Your task to perform on an android device: install app "eBay: The shopping marketplace" Image 0: 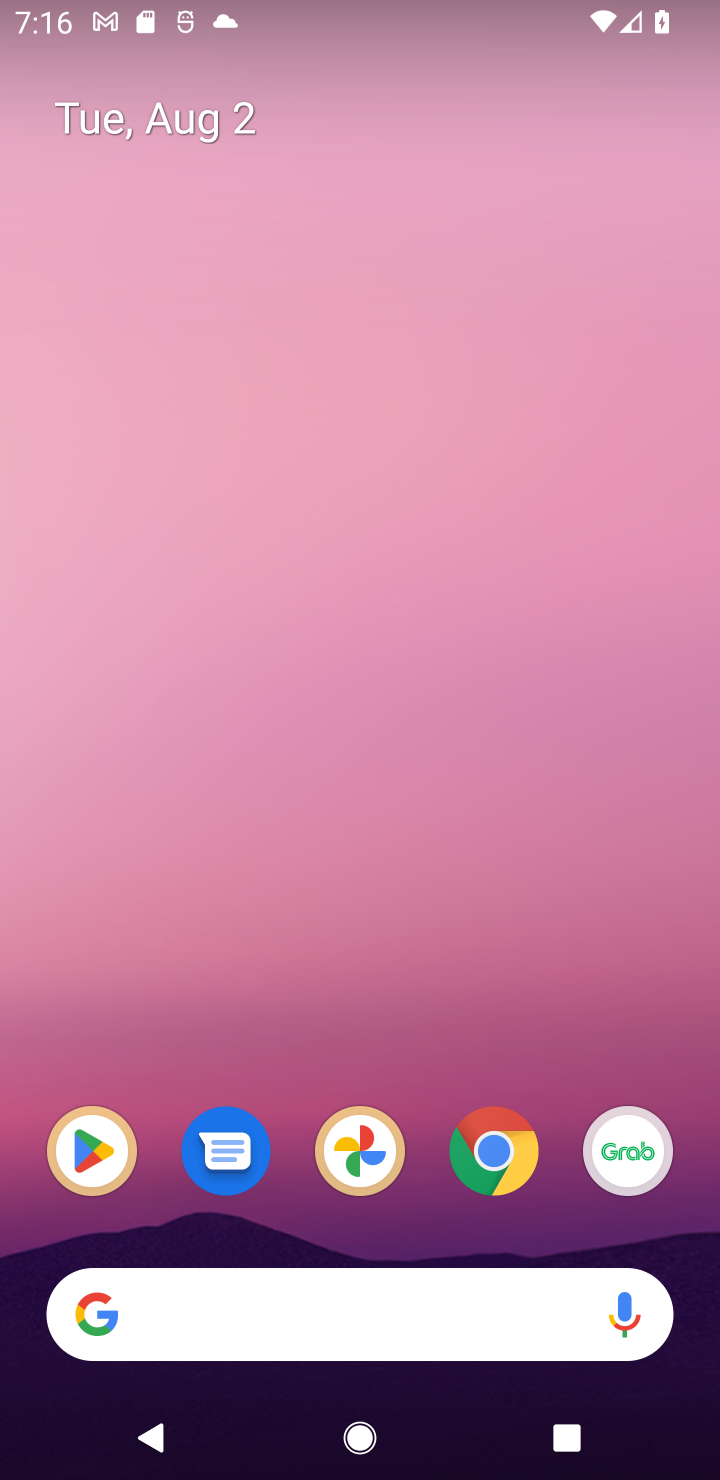
Step 0: click (78, 1164)
Your task to perform on an android device: install app "eBay: The shopping marketplace" Image 1: 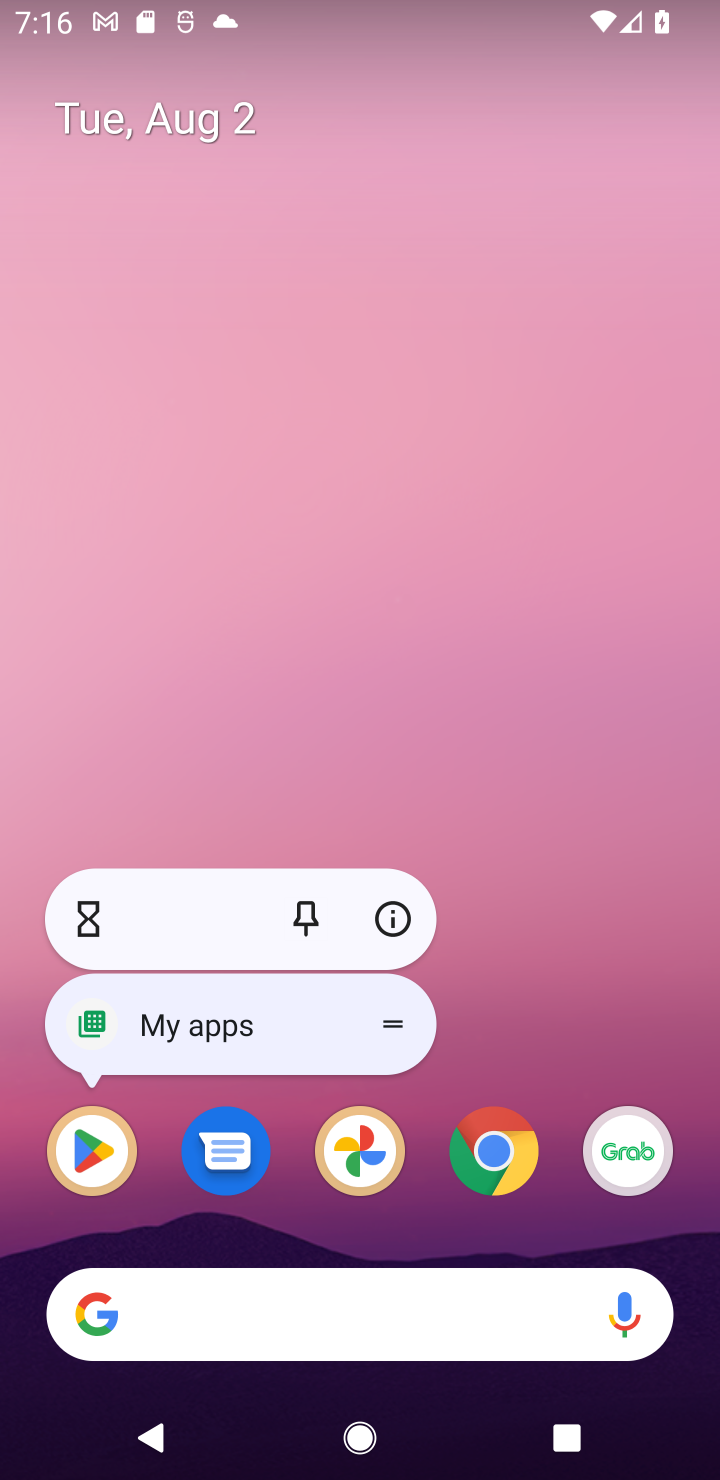
Step 1: click (78, 1164)
Your task to perform on an android device: install app "eBay: The shopping marketplace" Image 2: 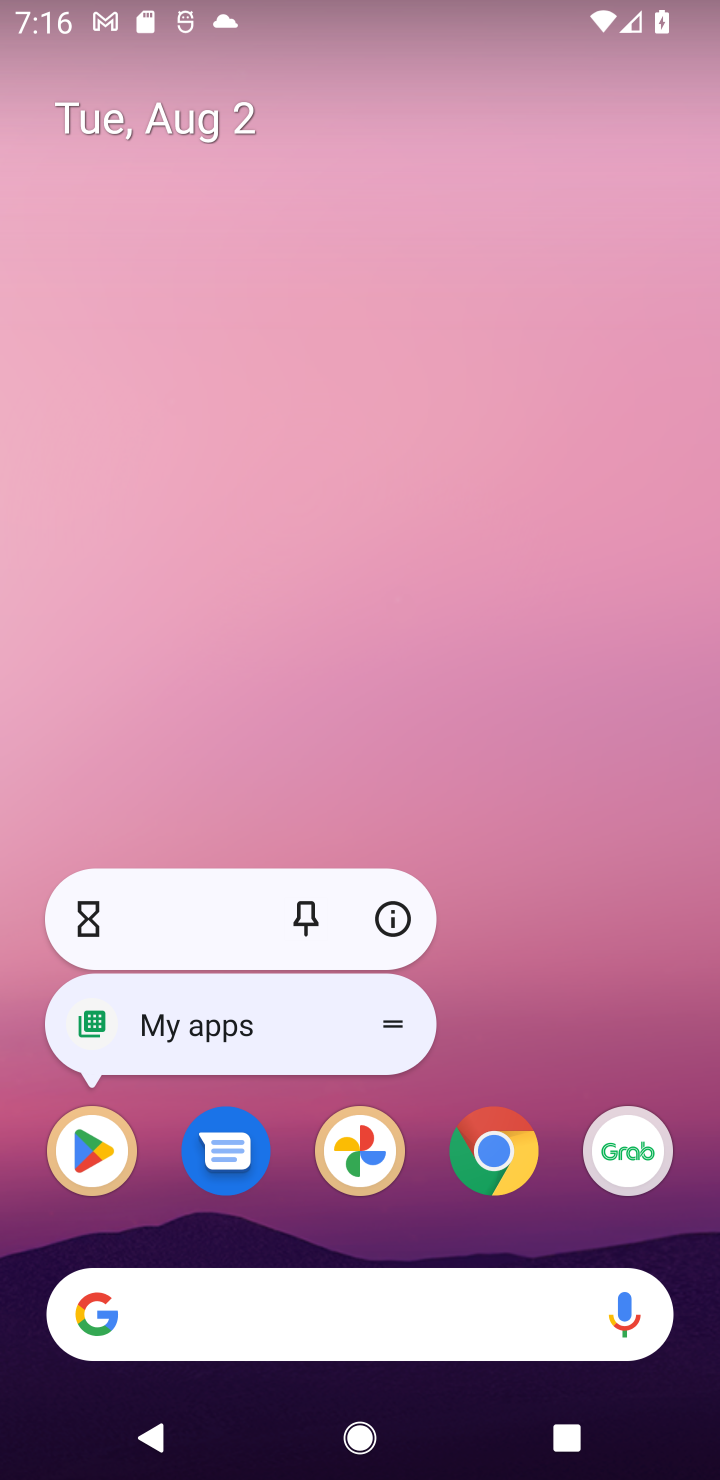
Step 2: click (63, 1146)
Your task to perform on an android device: install app "eBay: The shopping marketplace" Image 3: 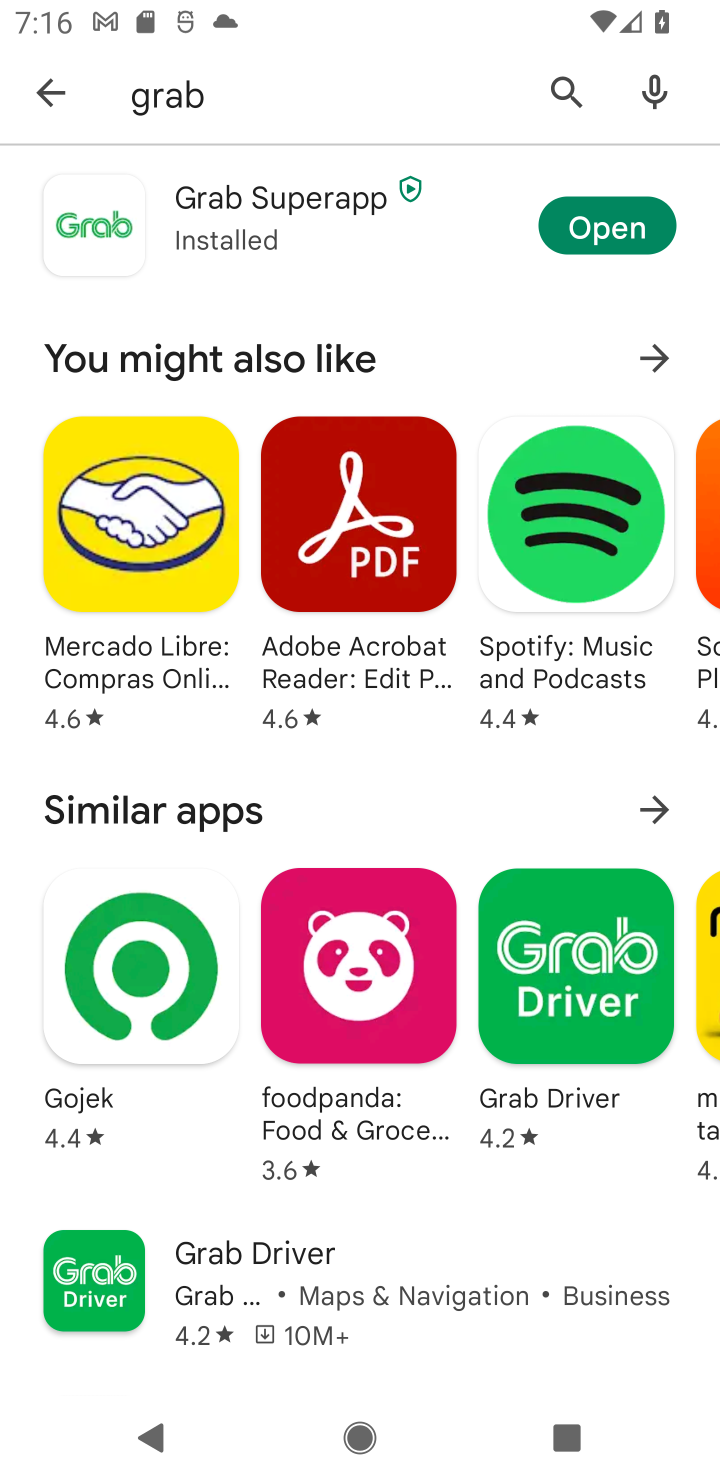
Step 3: click (571, 89)
Your task to perform on an android device: install app "eBay: The shopping marketplace" Image 4: 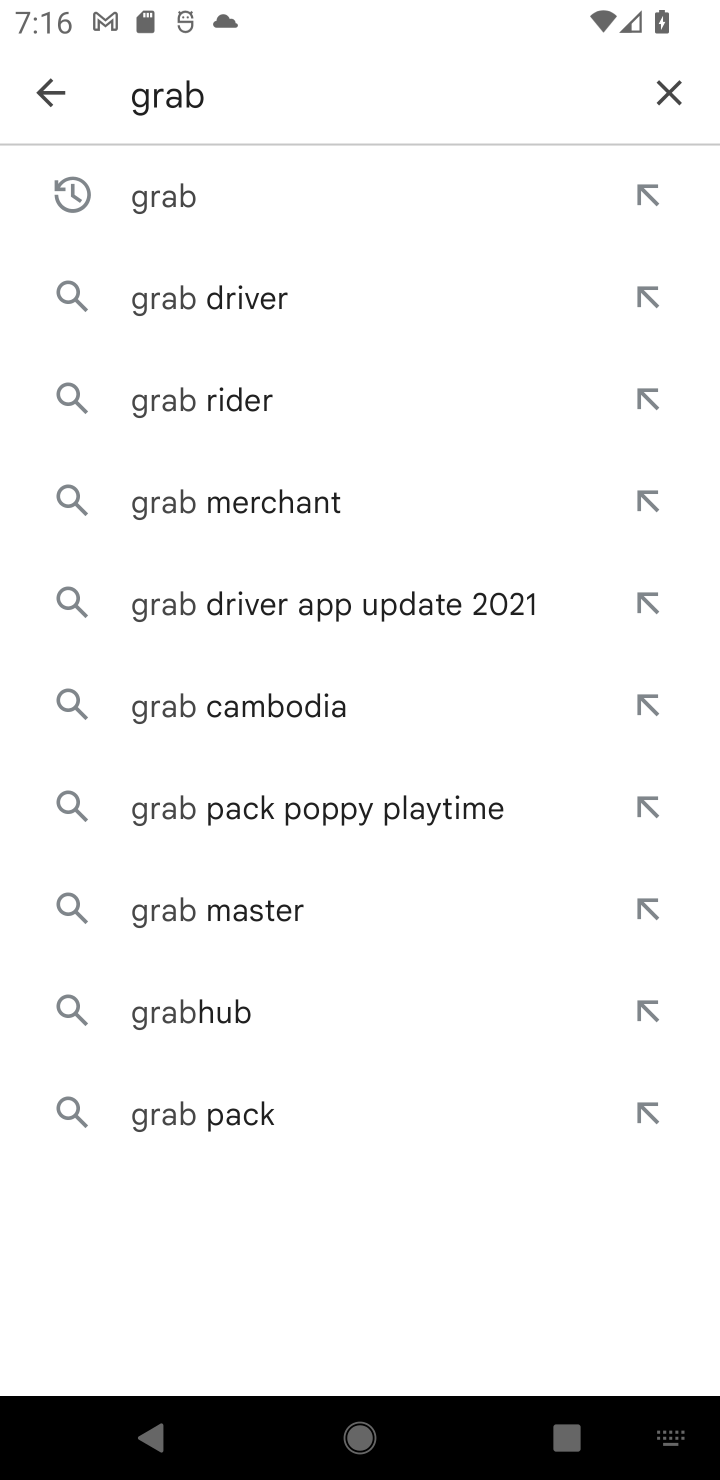
Step 4: click (679, 105)
Your task to perform on an android device: install app "eBay: The shopping marketplace" Image 5: 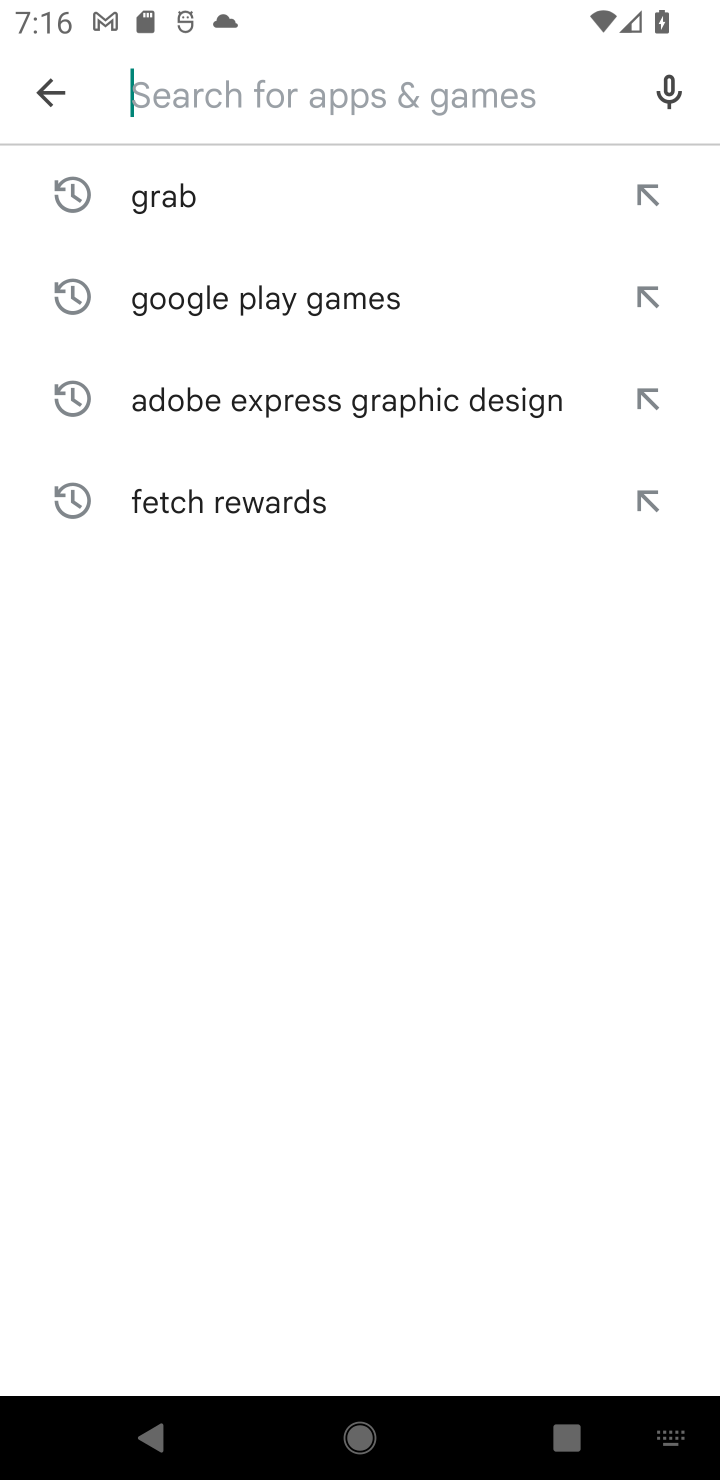
Step 5: type "eBay: The shopping marketplace"
Your task to perform on an android device: install app "eBay: The shopping marketplace" Image 6: 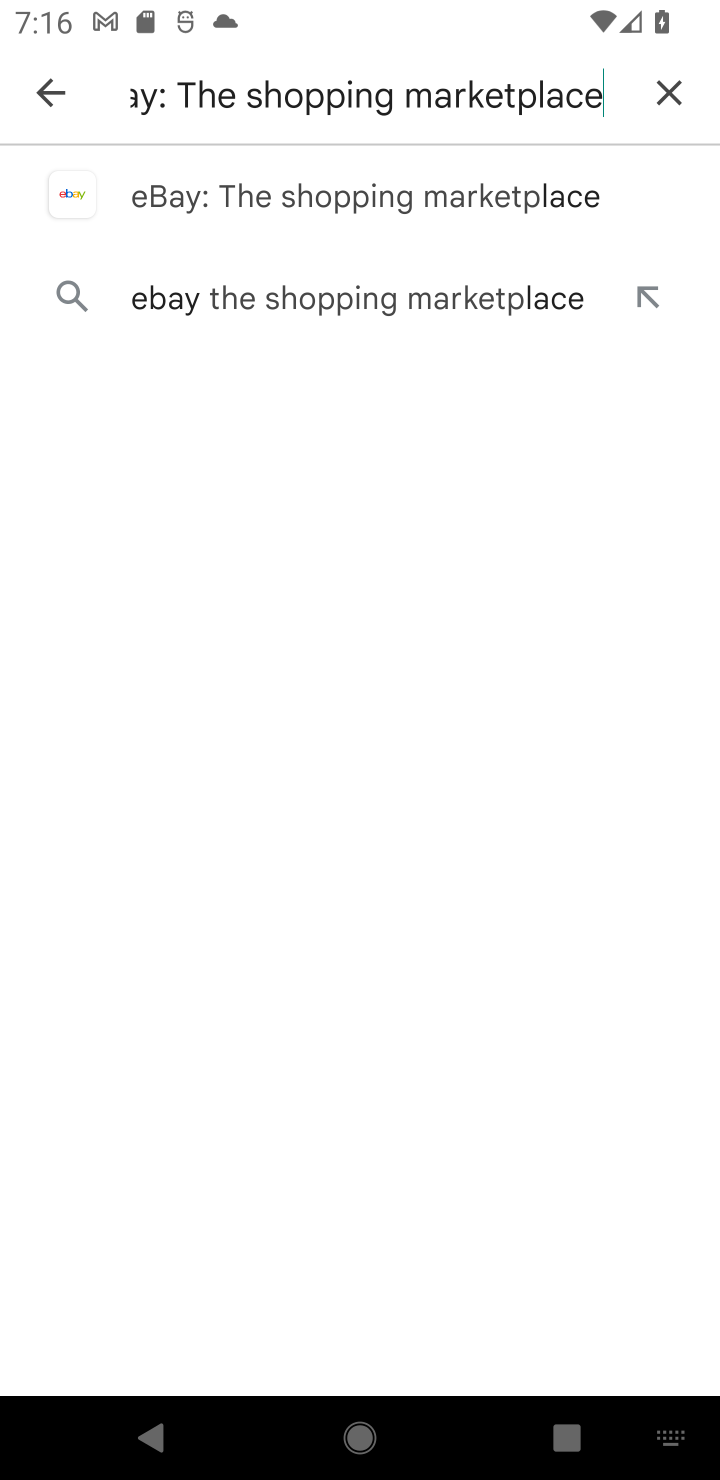
Step 6: type ""
Your task to perform on an android device: install app "eBay: The shopping marketplace" Image 7: 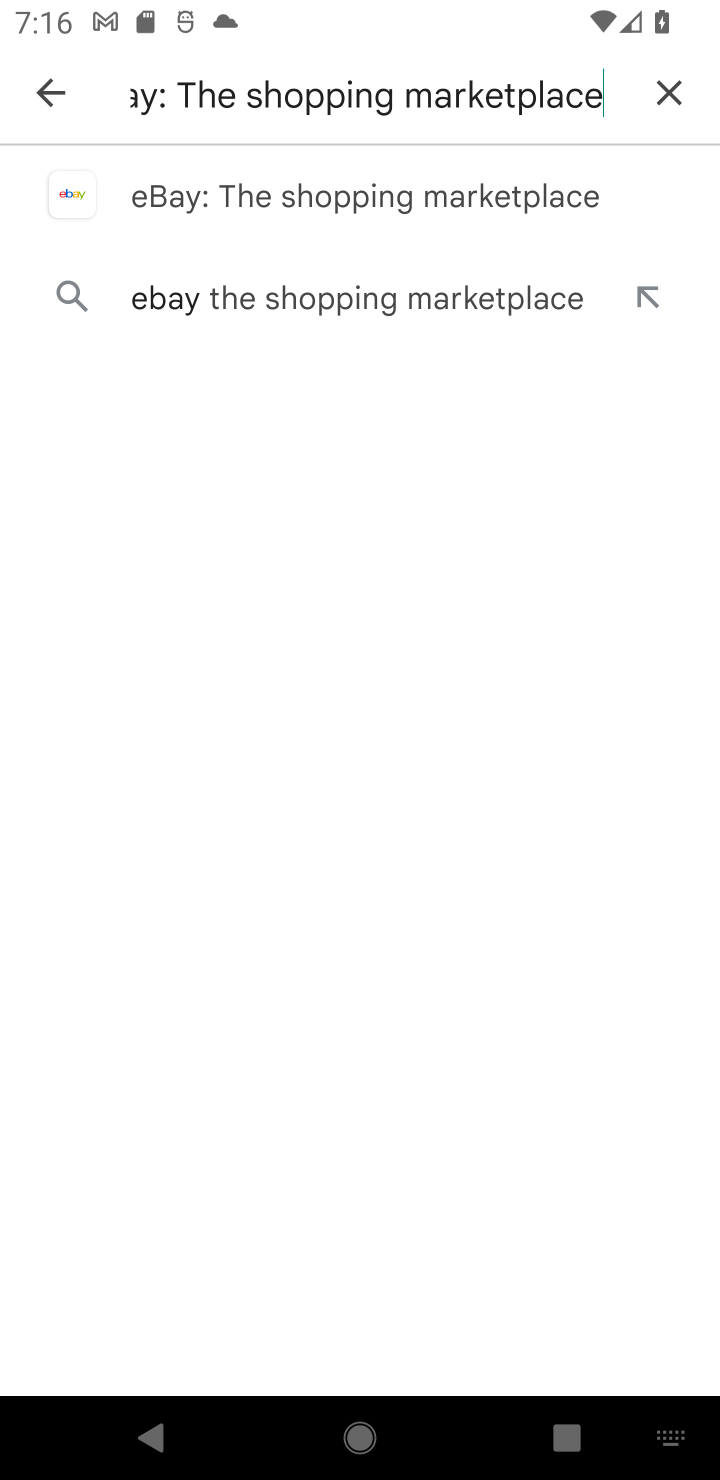
Step 7: click (246, 198)
Your task to perform on an android device: install app "eBay: The shopping marketplace" Image 8: 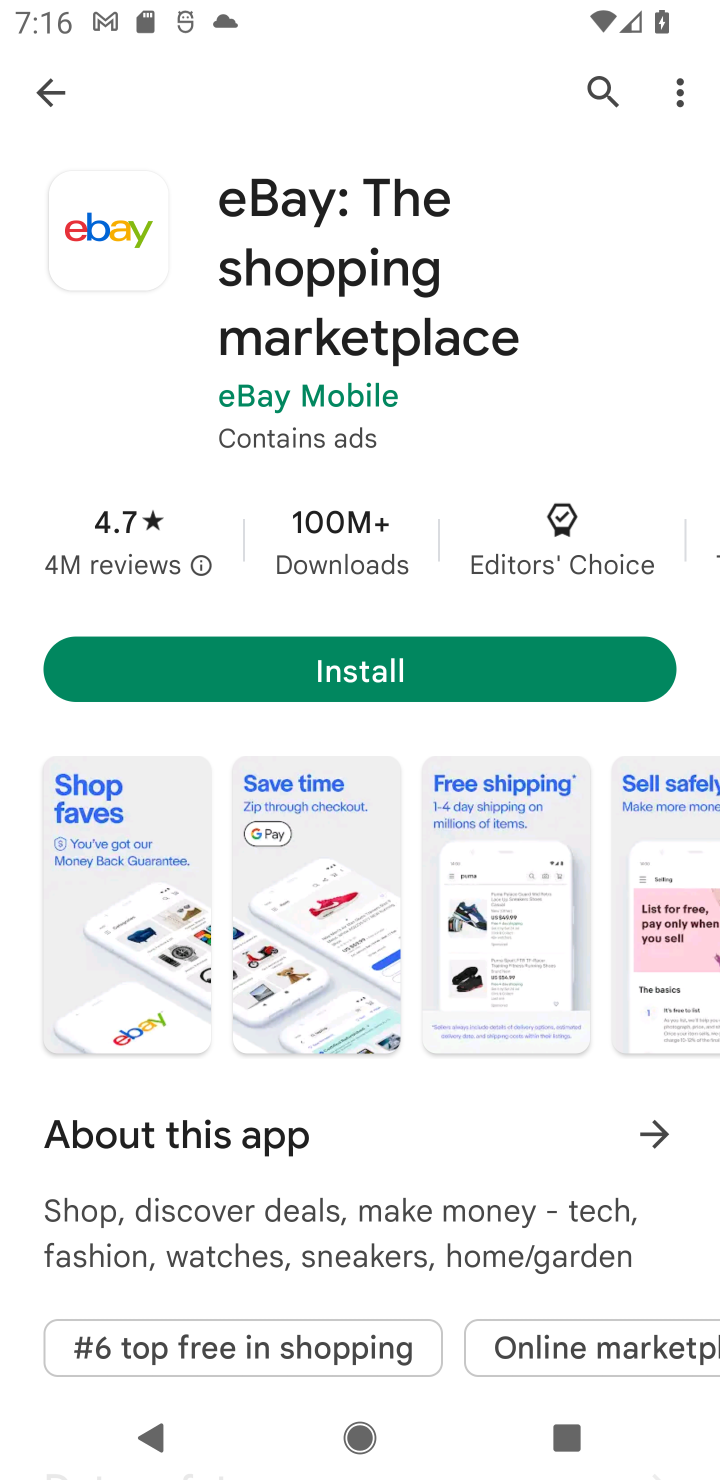
Step 8: click (470, 678)
Your task to perform on an android device: install app "eBay: The shopping marketplace" Image 9: 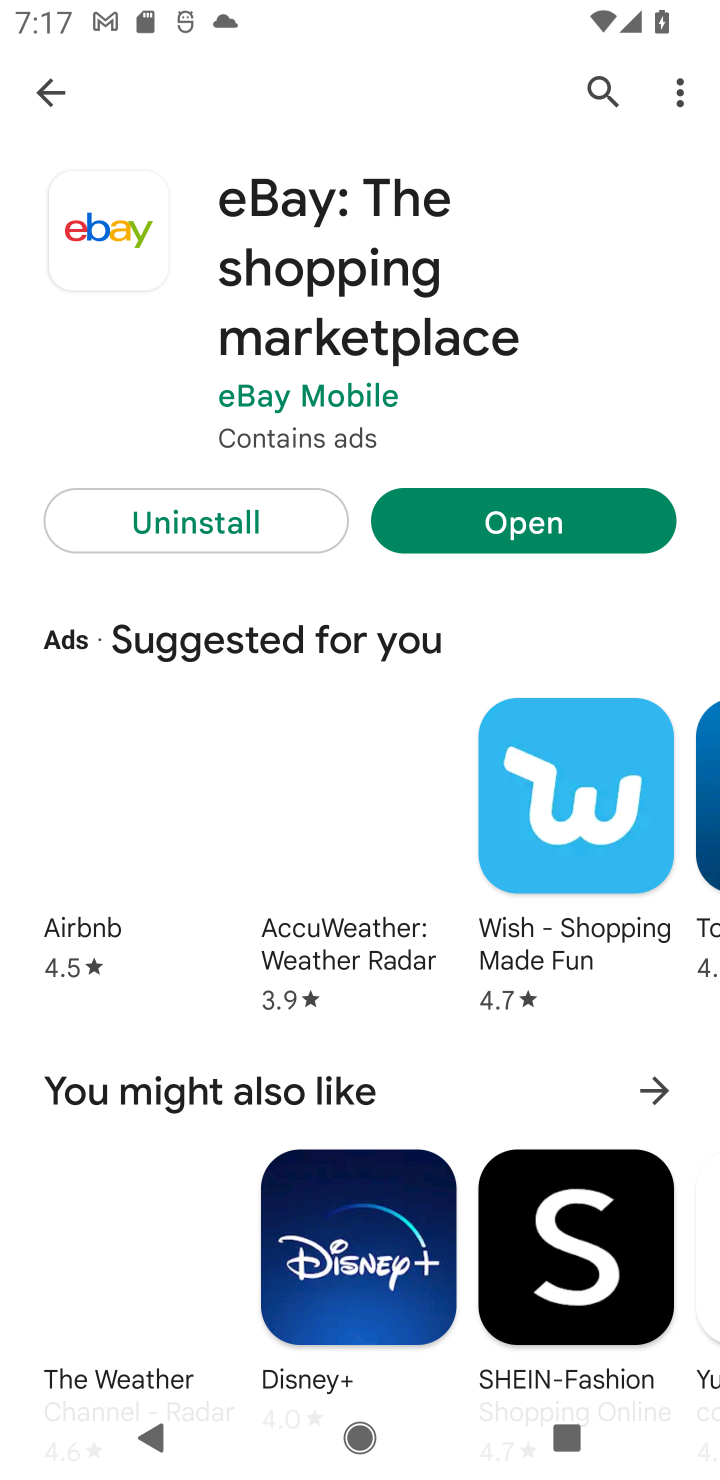
Step 9: task complete